Your task to perform on an android device: Open privacy settings Image 0: 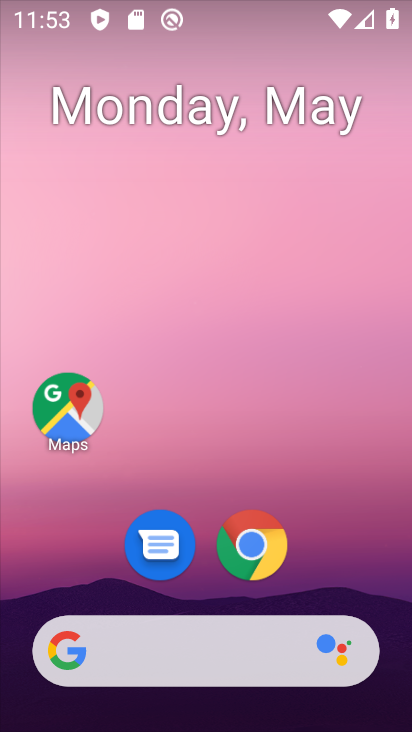
Step 0: drag from (318, 559) to (255, 212)
Your task to perform on an android device: Open privacy settings Image 1: 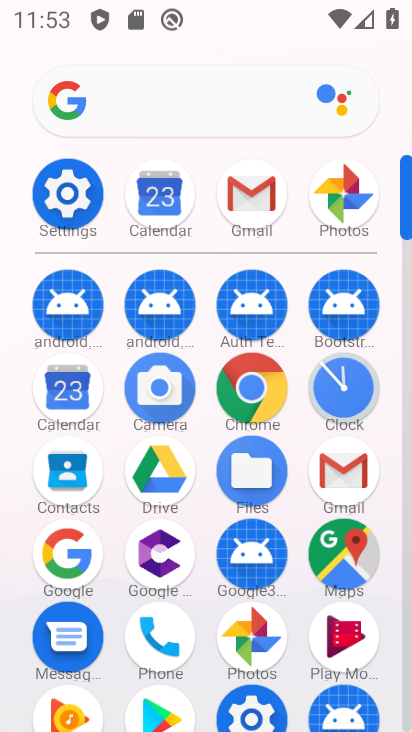
Step 1: click (68, 232)
Your task to perform on an android device: Open privacy settings Image 2: 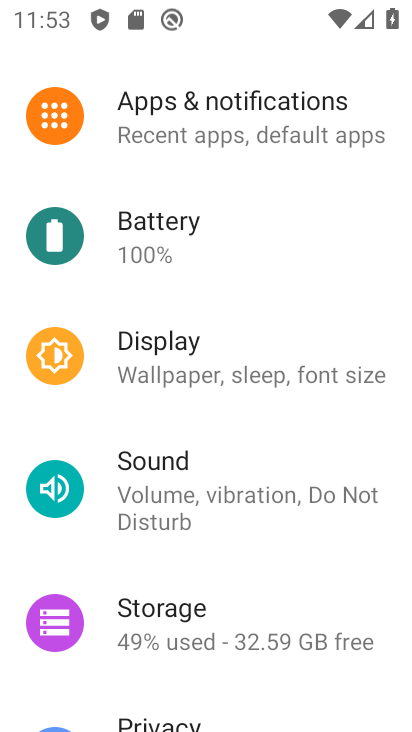
Step 2: task complete